Your task to perform on an android device: Open Amazon Image 0: 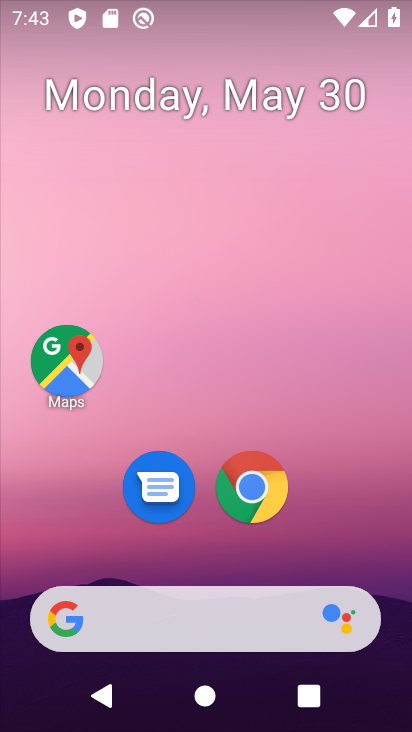
Step 0: click (251, 479)
Your task to perform on an android device: Open Amazon Image 1: 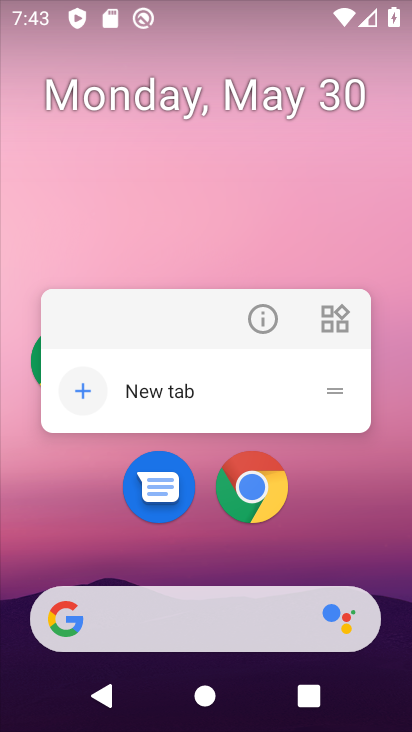
Step 1: click (251, 479)
Your task to perform on an android device: Open Amazon Image 2: 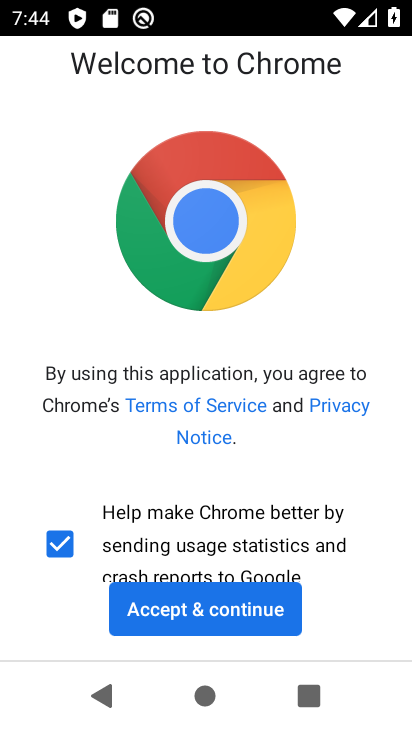
Step 2: click (257, 593)
Your task to perform on an android device: Open Amazon Image 3: 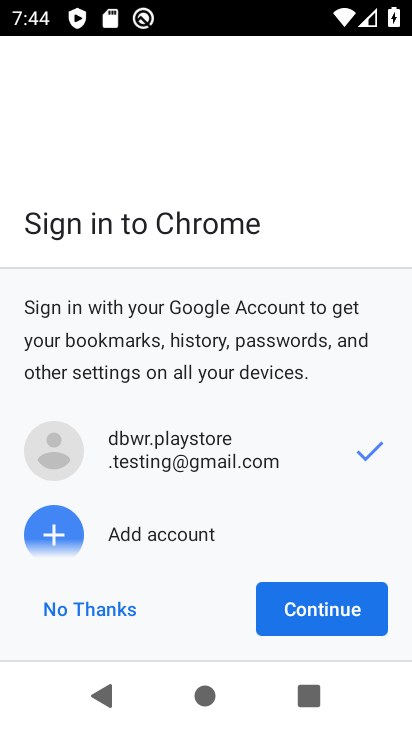
Step 3: click (343, 598)
Your task to perform on an android device: Open Amazon Image 4: 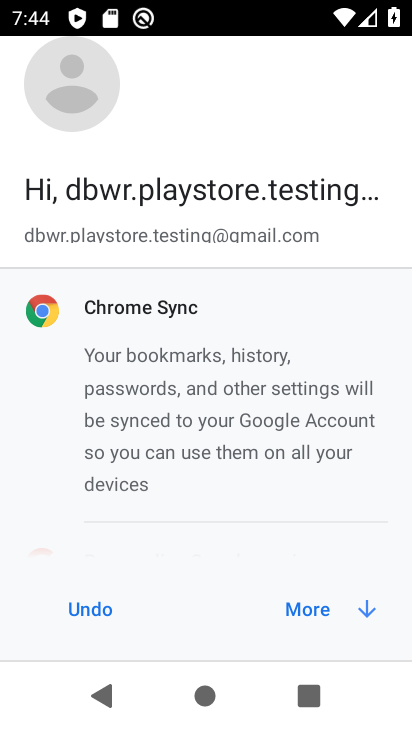
Step 4: click (302, 606)
Your task to perform on an android device: Open Amazon Image 5: 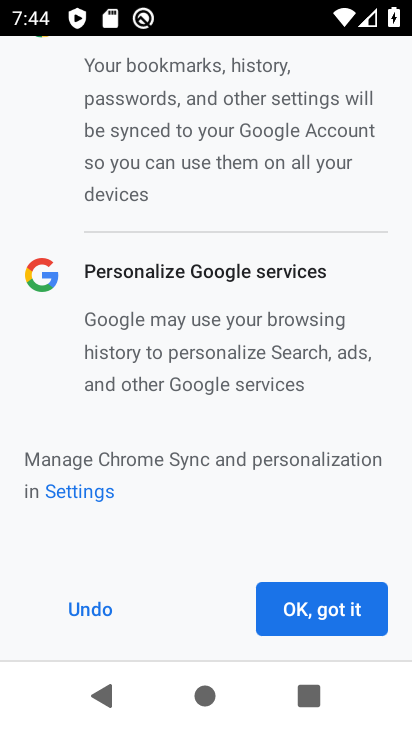
Step 5: click (301, 606)
Your task to perform on an android device: Open Amazon Image 6: 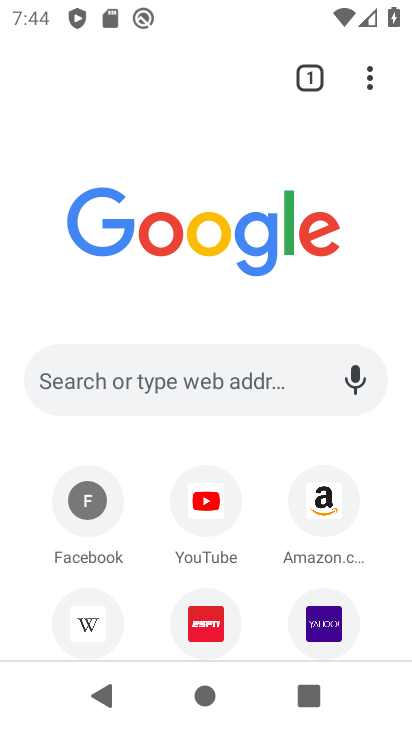
Step 6: click (321, 516)
Your task to perform on an android device: Open Amazon Image 7: 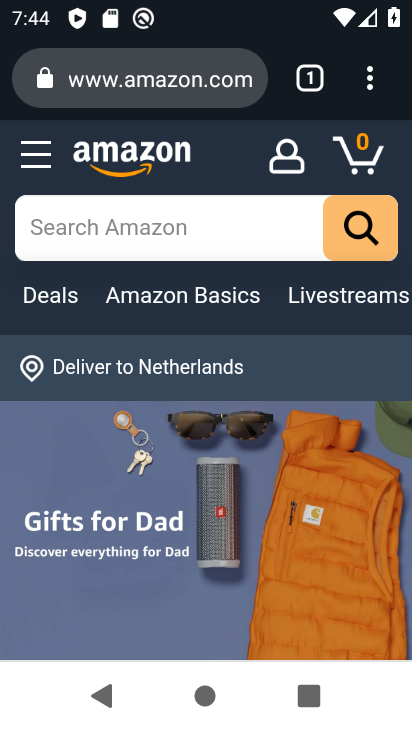
Step 7: task complete